Your task to perform on an android device: Show me popular videos on Youtube Image 0: 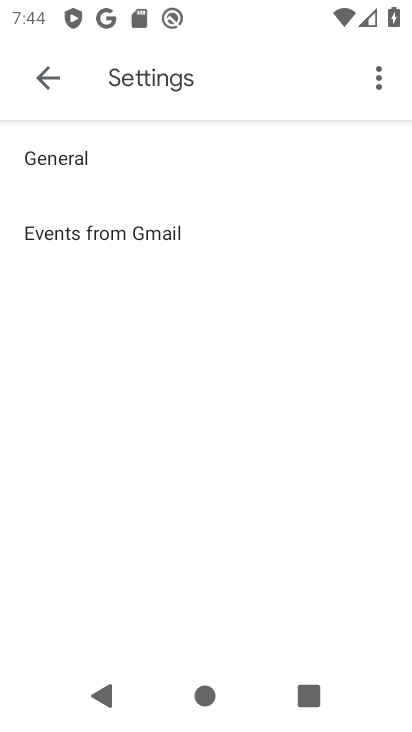
Step 0: press home button
Your task to perform on an android device: Show me popular videos on Youtube Image 1: 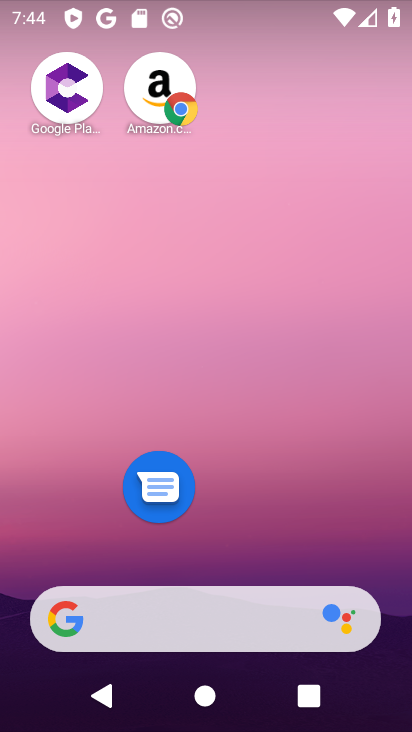
Step 1: drag from (49, 328) to (375, 324)
Your task to perform on an android device: Show me popular videos on Youtube Image 2: 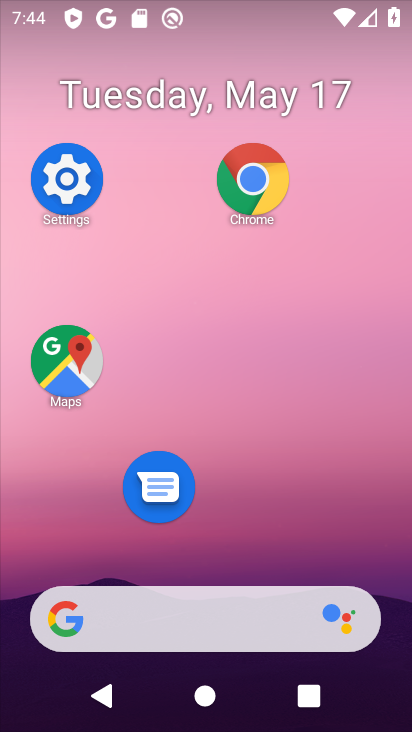
Step 2: drag from (274, 555) to (306, 98)
Your task to perform on an android device: Show me popular videos on Youtube Image 3: 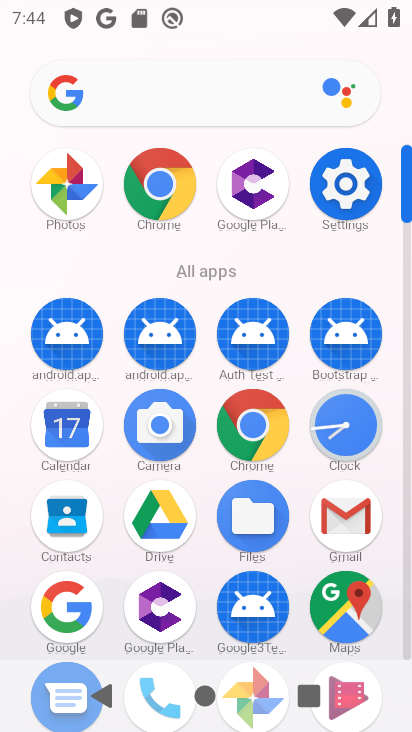
Step 3: drag from (262, 517) to (296, 103)
Your task to perform on an android device: Show me popular videos on Youtube Image 4: 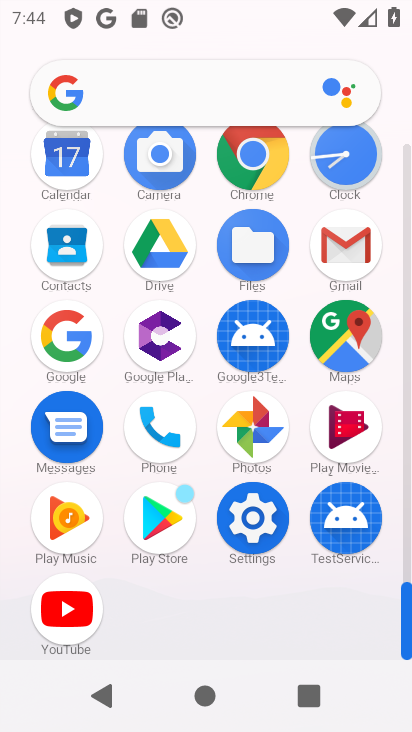
Step 4: drag from (47, 615) to (68, 312)
Your task to perform on an android device: Show me popular videos on Youtube Image 5: 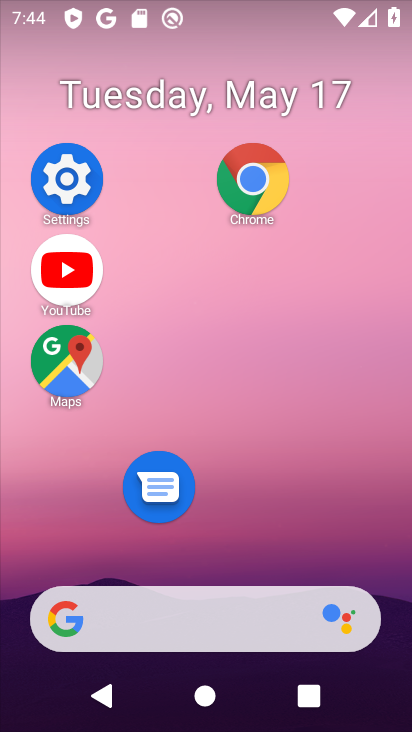
Step 5: click (82, 262)
Your task to perform on an android device: Show me popular videos on Youtube Image 6: 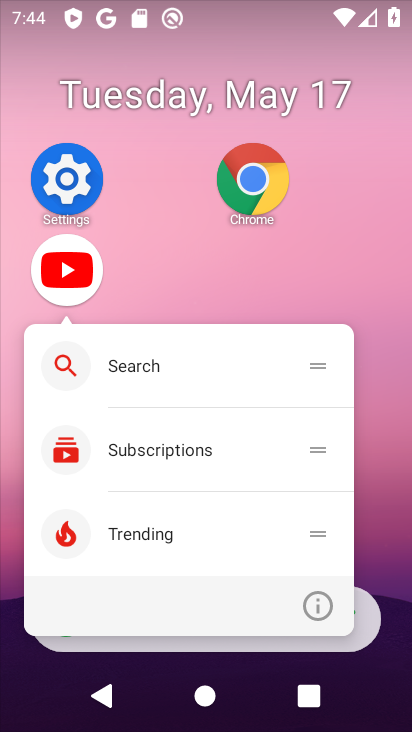
Step 6: click (82, 262)
Your task to perform on an android device: Show me popular videos on Youtube Image 7: 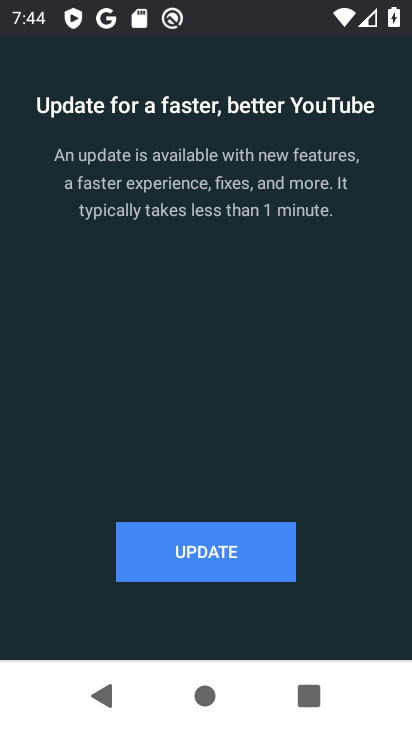
Step 7: click (151, 543)
Your task to perform on an android device: Show me popular videos on Youtube Image 8: 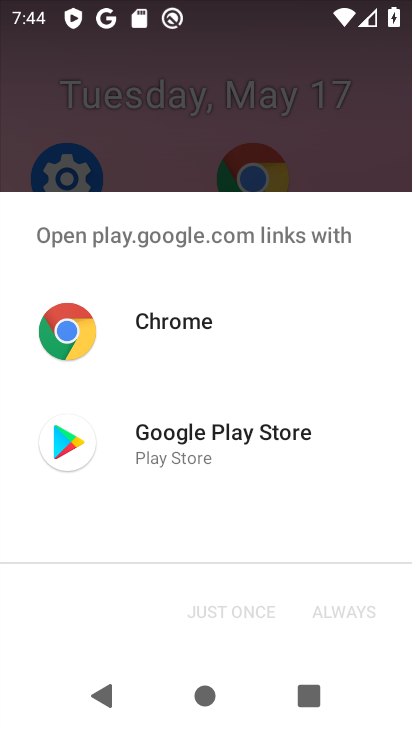
Step 8: click (185, 456)
Your task to perform on an android device: Show me popular videos on Youtube Image 9: 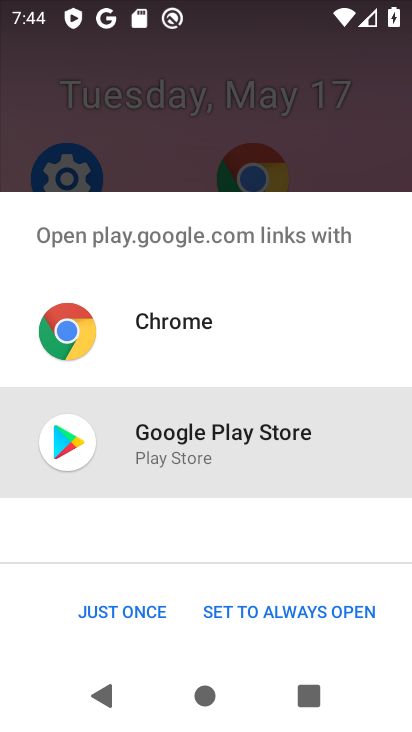
Step 9: drag from (185, 456) to (285, 456)
Your task to perform on an android device: Show me popular videos on Youtube Image 10: 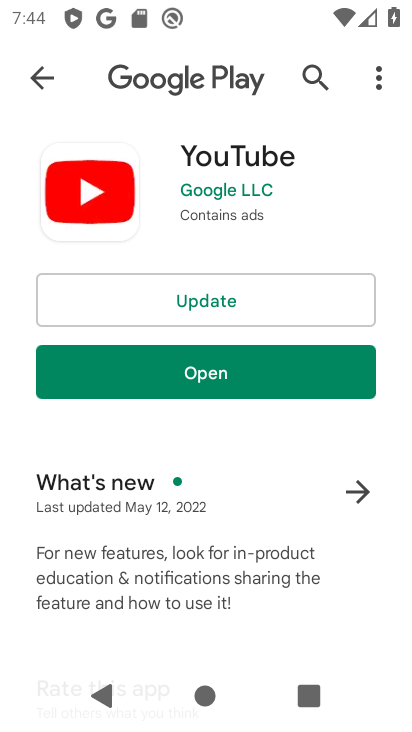
Step 10: click (304, 303)
Your task to perform on an android device: Show me popular videos on Youtube Image 11: 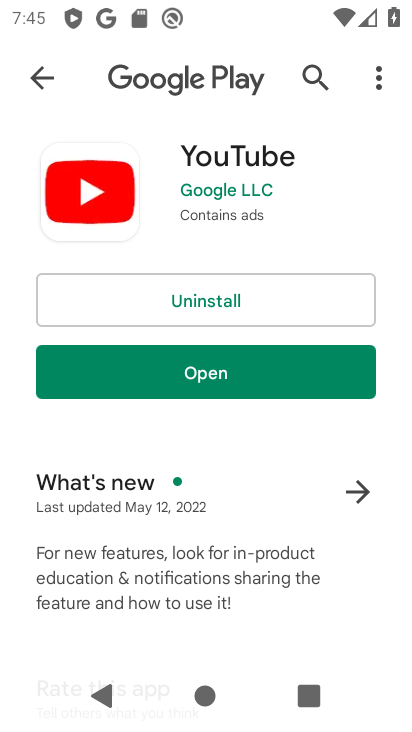
Step 11: click (305, 368)
Your task to perform on an android device: Show me popular videos on Youtube Image 12: 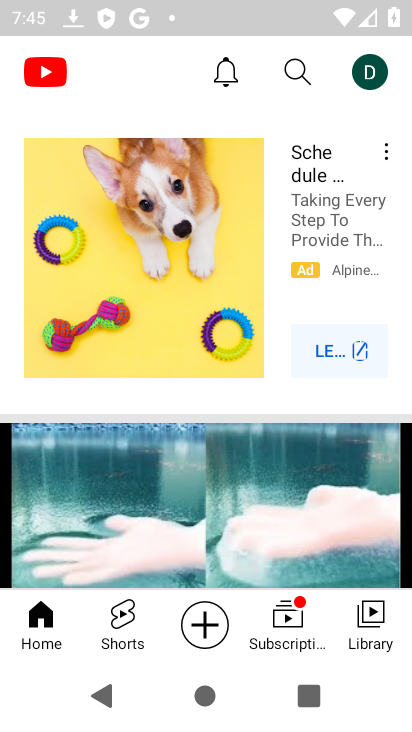
Step 12: task complete